Your task to perform on an android device: Open location settings Image 0: 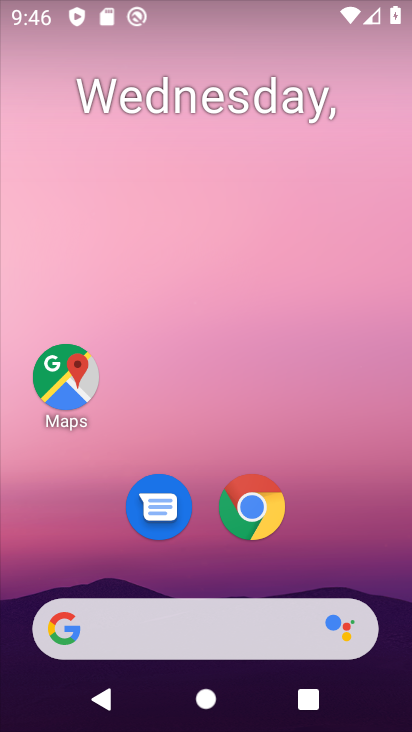
Step 0: drag from (259, 676) to (236, 216)
Your task to perform on an android device: Open location settings Image 1: 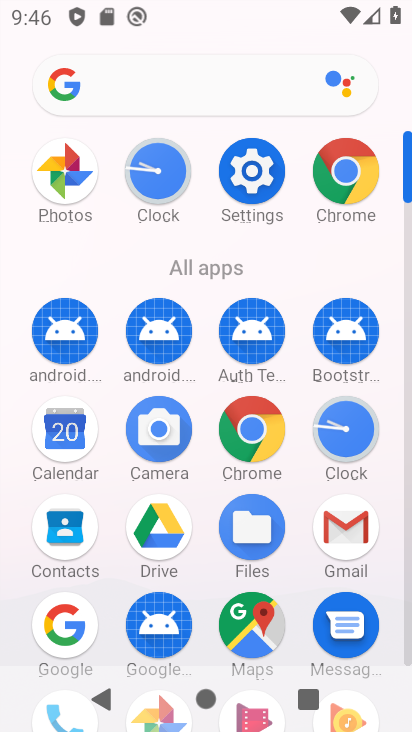
Step 1: click (247, 191)
Your task to perform on an android device: Open location settings Image 2: 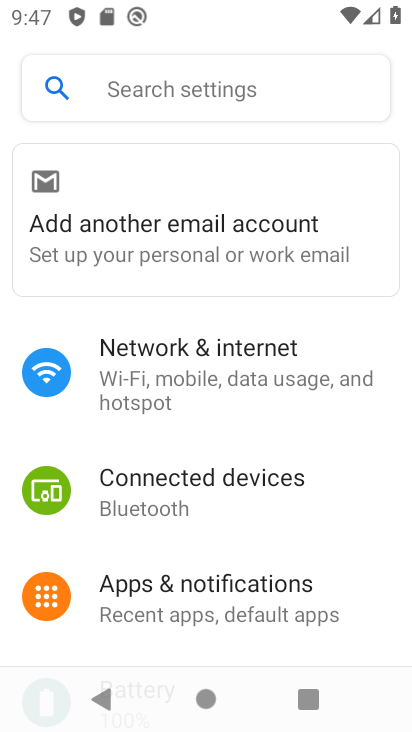
Step 2: click (191, 94)
Your task to perform on an android device: Open location settings Image 3: 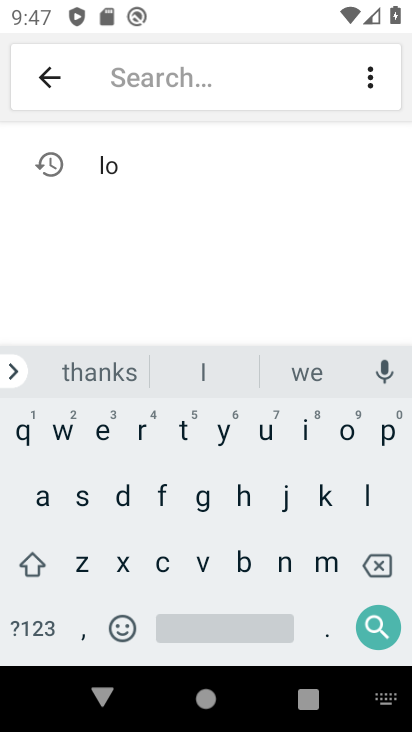
Step 3: click (113, 164)
Your task to perform on an android device: Open location settings Image 4: 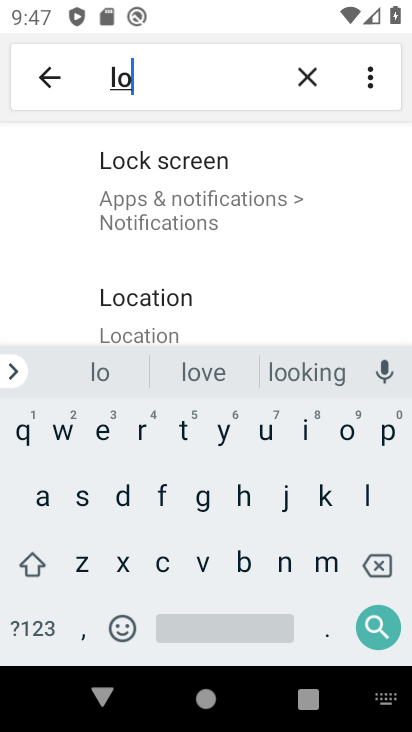
Step 4: click (145, 288)
Your task to perform on an android device: Open location settings Image 5: 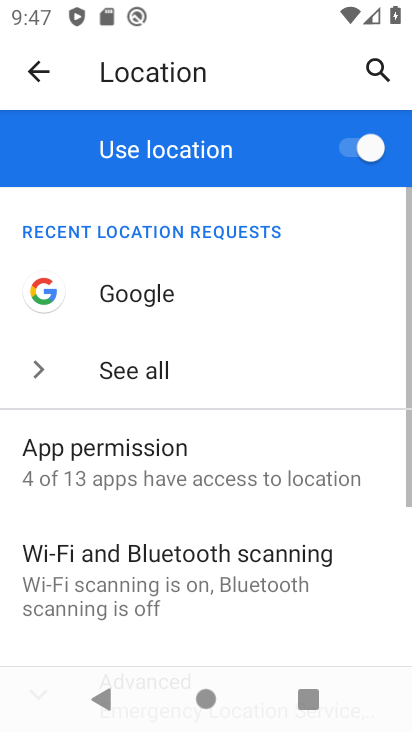
Step 5: drag from (185, 517) to (181, 324)
Your task to perform on an android device: Open location settings Image 6: 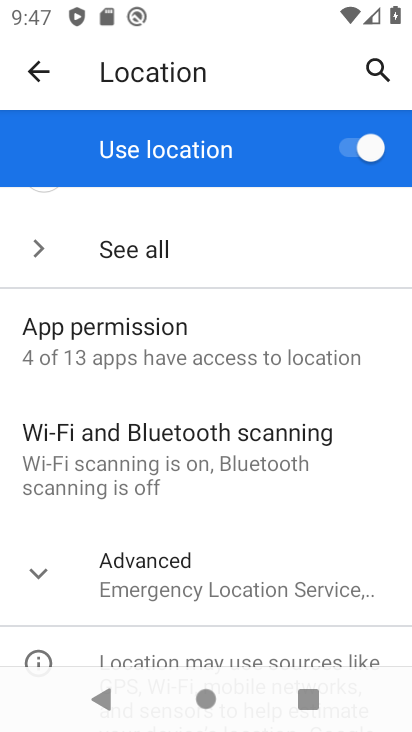
Step 6: click (85, 564)
Your task to perform on an android device: Open location settings Image 7: 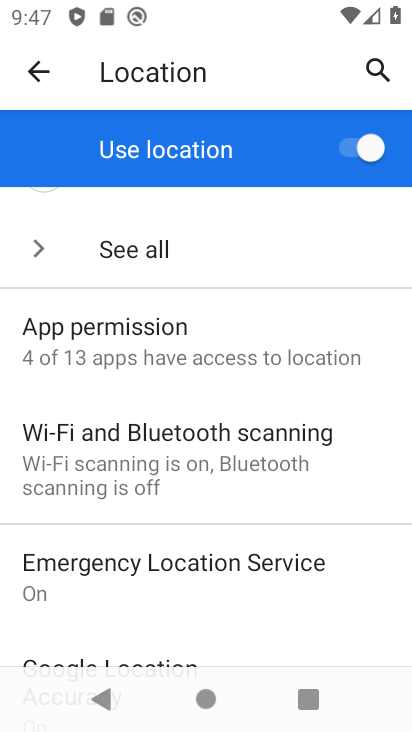
Step 7: task complete